Your task to perform on an android device: turn smart compose on in the gmail app Image 0: 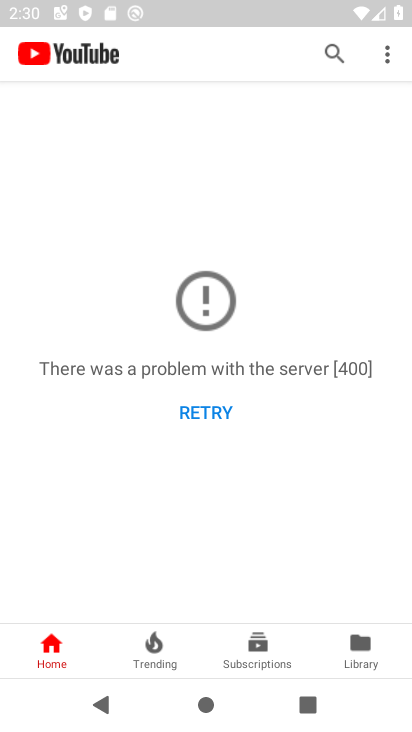
Step 0: press home button
Your task to perform on an android device: turn smart compose on in the gmail app Image 1: 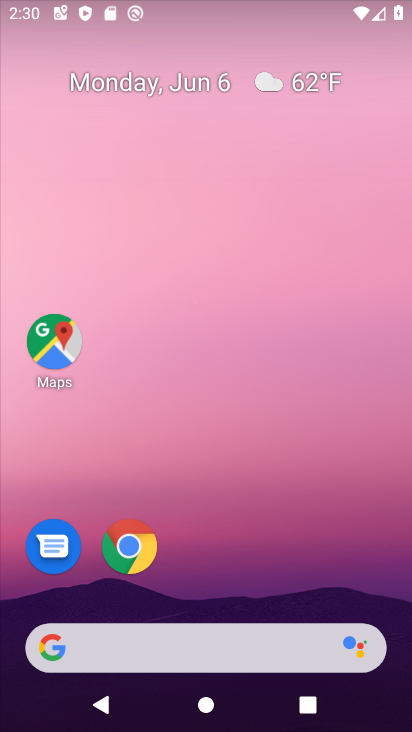
Step 1: drag from (227, 595) to (222, 129)
Your task to perform on an android device: turn smart compose on in the gmail app Image 2: 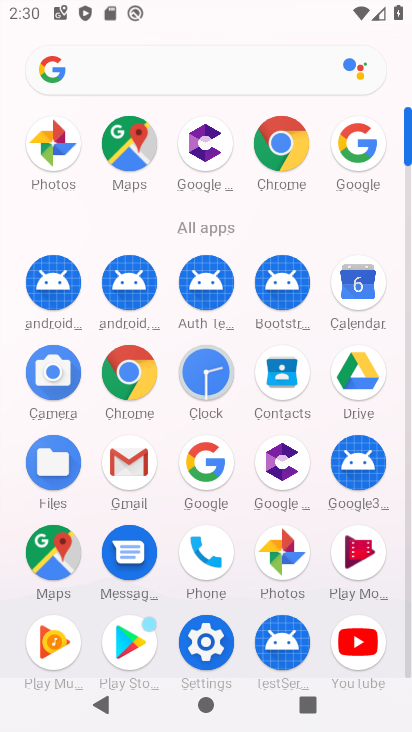
Step 2: click (122, 462)
Your task to perform on an android device: turn smart compose on in the gmail app Image 3: 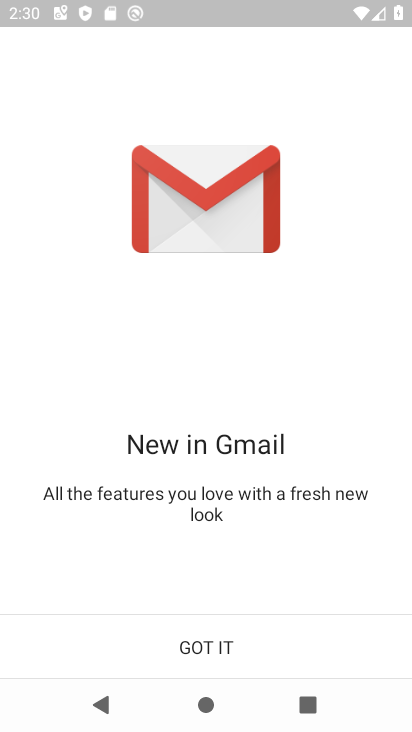
Step 3: click (198, 649)
Your task to perform on an android device: turn smart compose on in the gmail app Image 4: 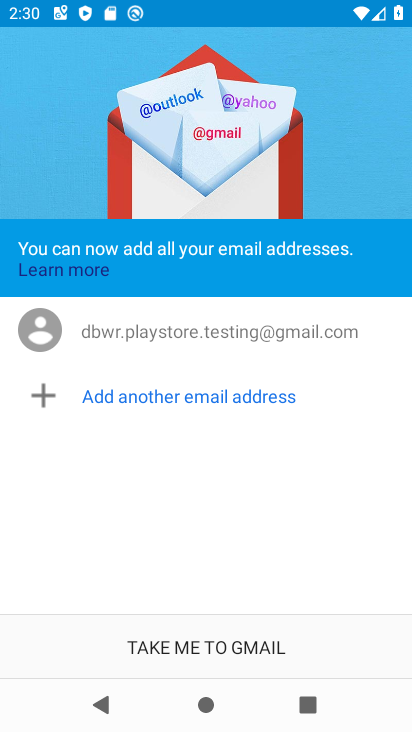
Step 4: click (198, 649)
Your task to perform on an android device: turn smart compose on in the gmail app Image 5: 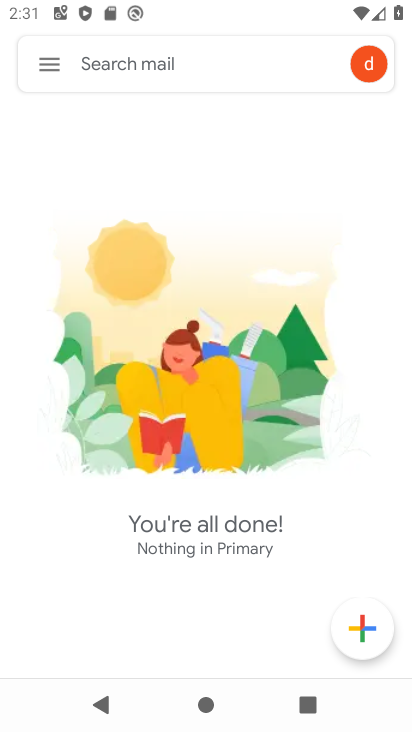
Step 5: click (52, 72)
Your task to perform on an android device: turn smart compose on in the gmail app Image 6: 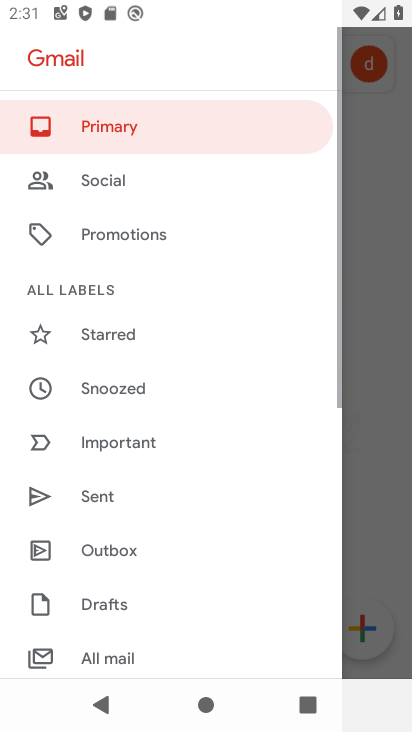
Step 6: drag from (161, 605) to (159, 258)
Your task to perform on an android device: turn smart compose on in the gmail app Image 7: 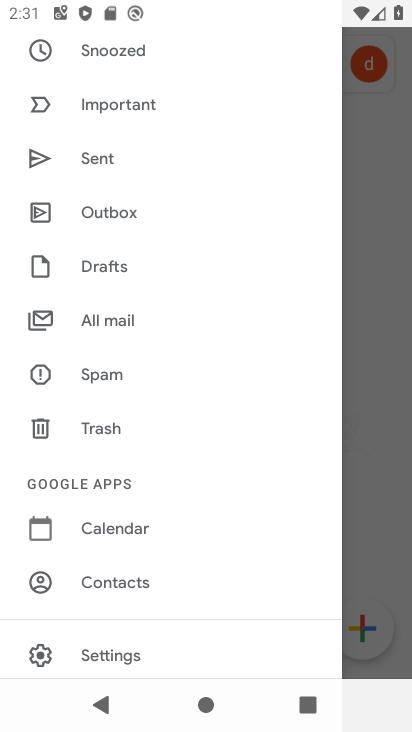
Step 7: click (121, 641)
Your task to perform on an android device: turn smart compose on in the gmail app Image 8: 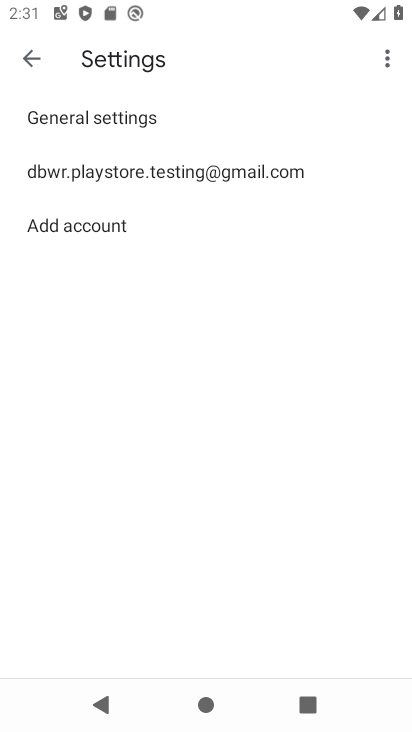
Step 8: click (72, 161)
Your task to perform on an android device: turn smart compose on in the gmail app Image 9: 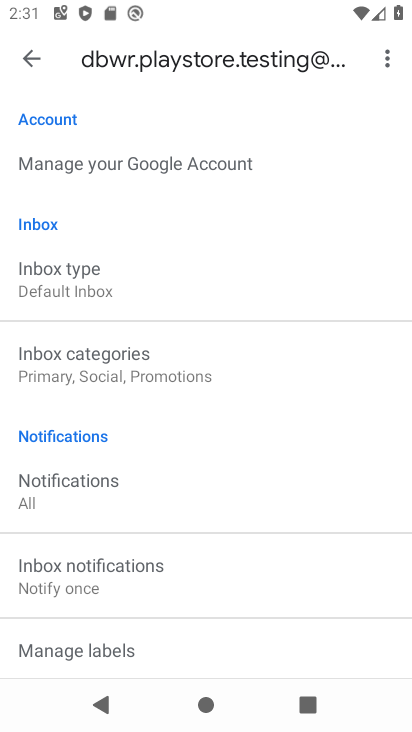
Step 9: task complete